Your task to perform on an android device: Open Chrome and go to the settings page Image 0: 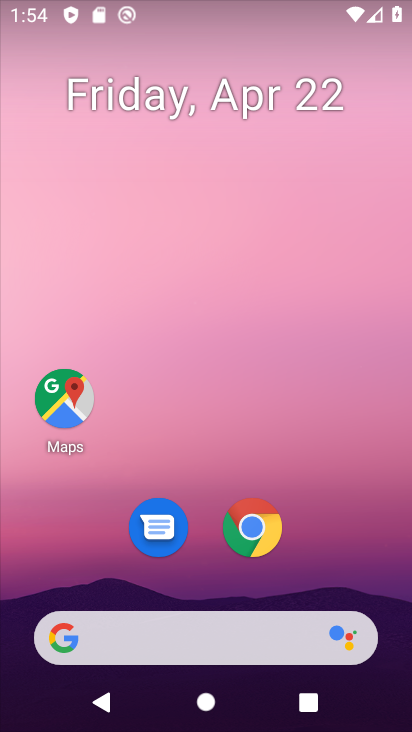
Step 0: drag from (366, 574) to (385, 102)
Your task to perform on an android device: Open Chrome and go to the settings page Image 1: 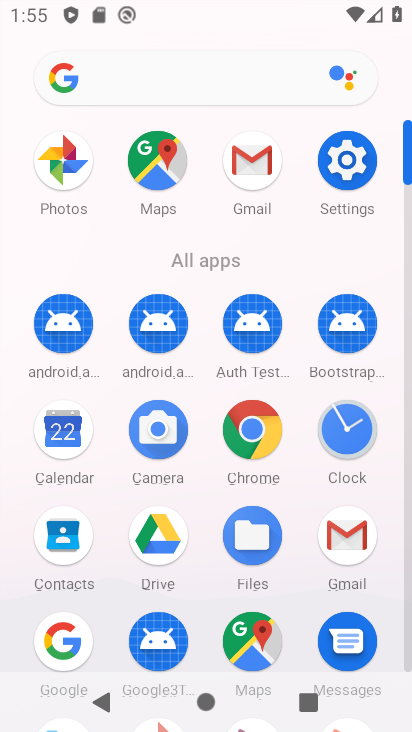
Step 1: drag from (302, 404) to (300, 76)
Your task to perform on an android device: Open Chrome and go to the settings page Image 2: 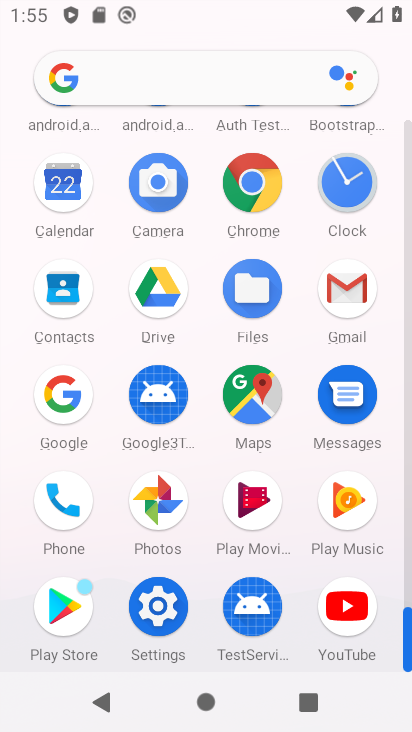
Step 2: click (258, 187)
Your task to perform on an android device: Open Chrome and go to the settings page Image 3: 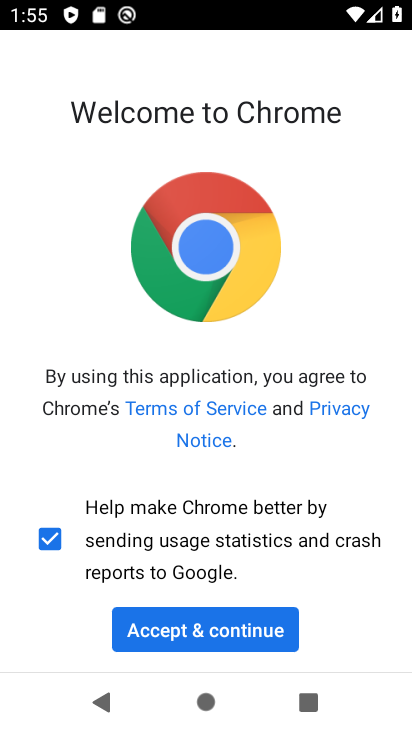
Step 3: click (239, 628)
Your task to perform on an android device: Open Chrome and go to the settings page Image 4: 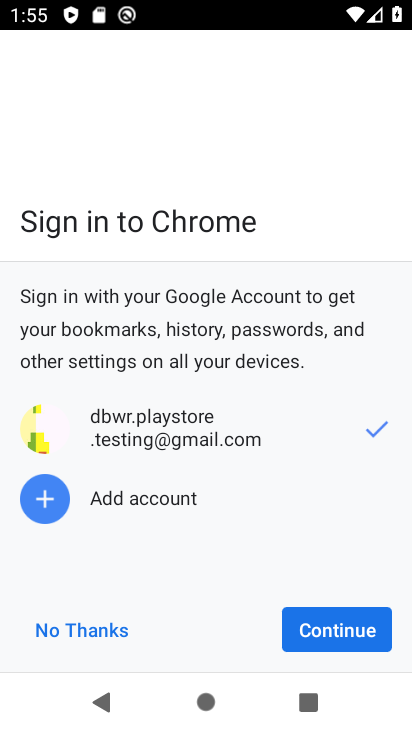
Step 4: click (330, 624)
Your task to perform on an android device: Open Chrome and go to the settings page Image 5: 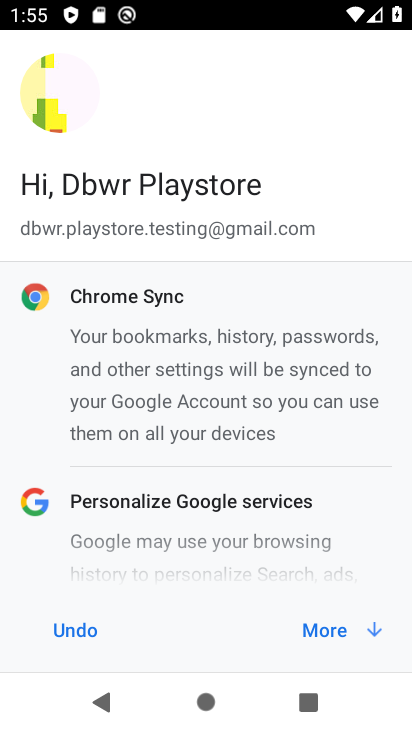
Step 5: click (337, 635)
Your task to perform on an android device: Open Chrome and go to the settings page Image 6: 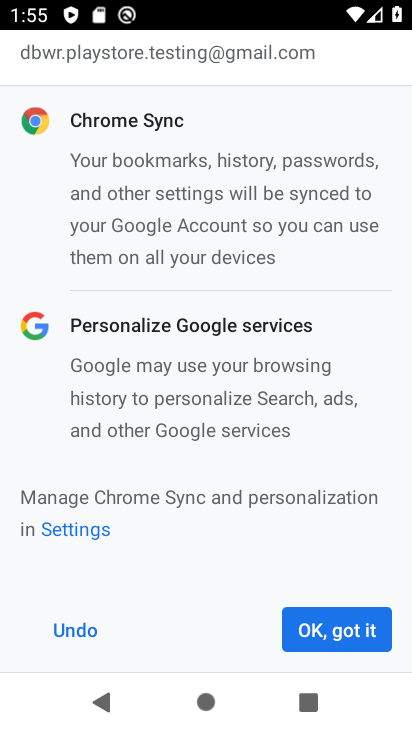
Step 6: click (340, 628)
Your task to perform on an android device: Open Chrome and go to the settings page Image 7: 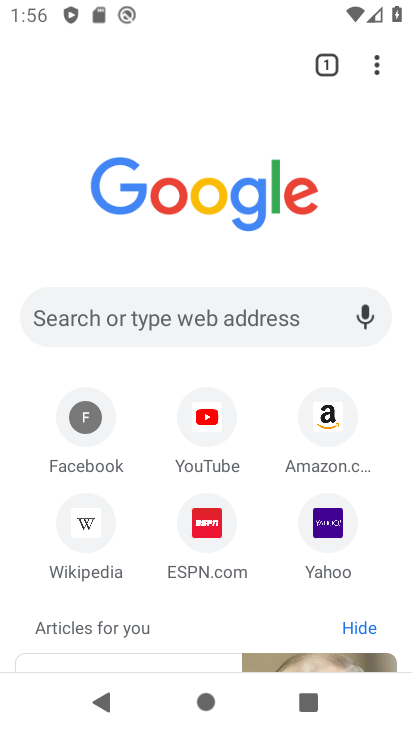
Step 7: task complete